Your task to perform on an android device: Turn on the flashlight Image 0: 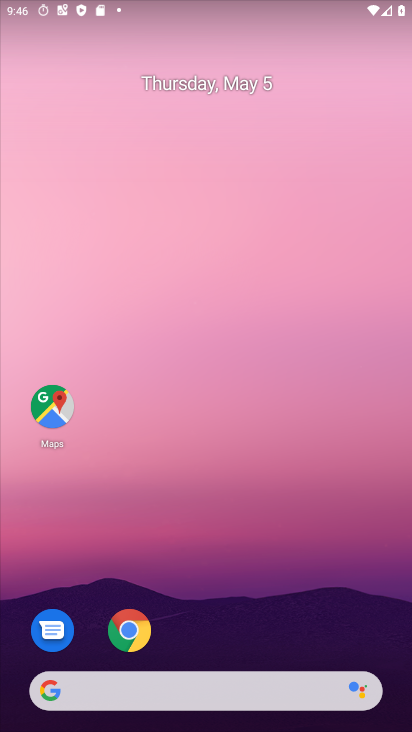
Step 0: drag from (174, 404) to (73, 94)
Your task to perform on an android device: Turn on the flashlight Image 1: 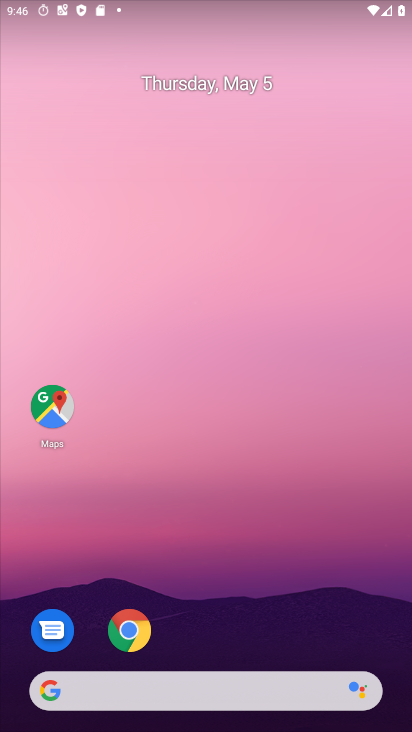
Step 1: drag from (202, 619) to (102, 67)
Your task to perform on an android device: Turn on the flashlight Image 2: 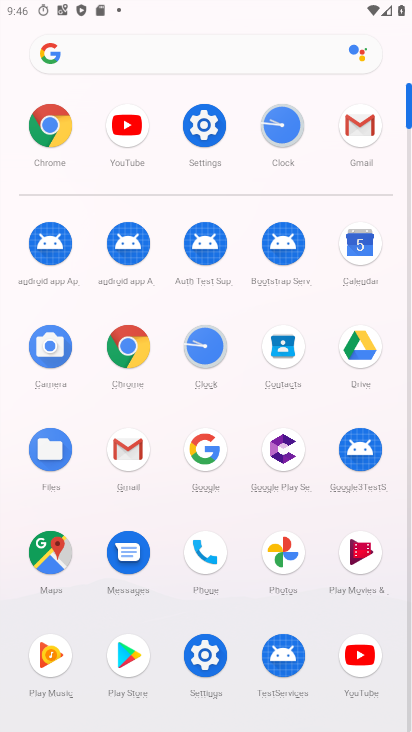
Step 2: click (198, 121)
Your task to perform on an android device: Turn on the flashlight Image 3: 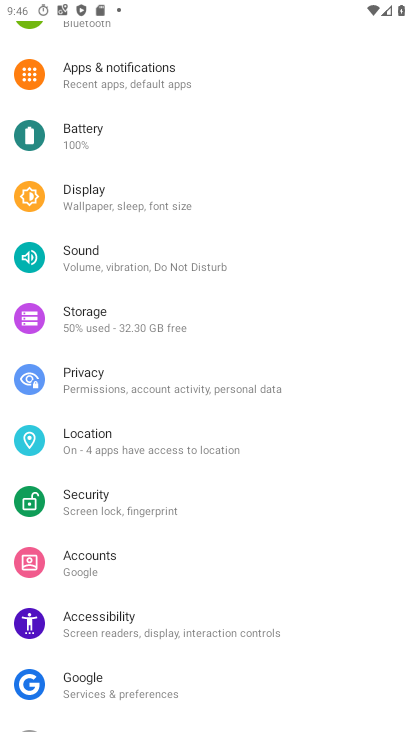
Step 3: drag from (219, 90) to (144, 443)
Your task to perform on an android device: Turn on the flashlight Image 4: 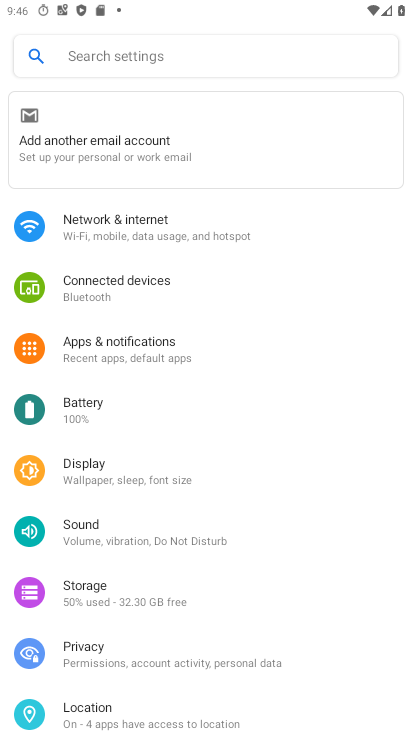
Step 4: click (151, 46)
Your task to perform on an android device: Turn on the flashlight Image 5: 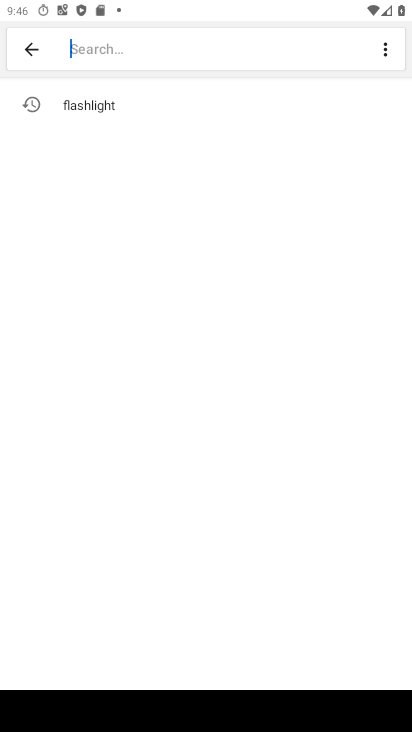
Step 5: click (91, 103)
Your task to perform on an android device: Turn on the flashlight Image 6: 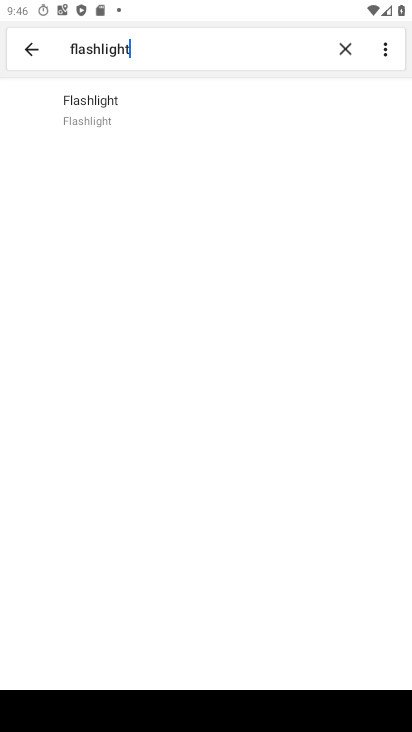
Step 6: click (91, 102)
Your task to perform on an android device: Turn on the flashlight Image 7: 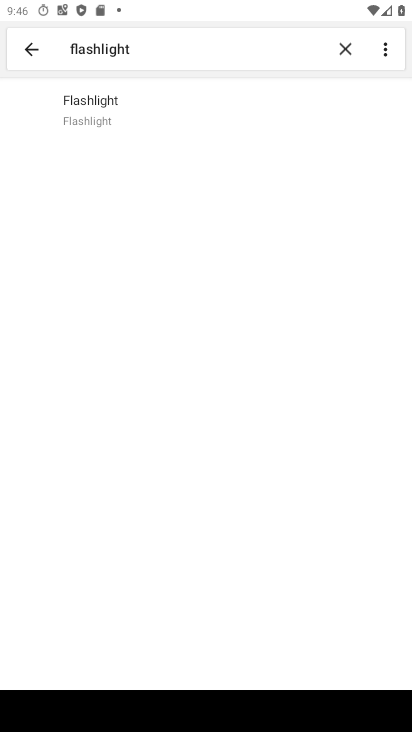
Step 7: click (91, 102)
Your task to perform on an android device: Turn on the flashlight Image 8: 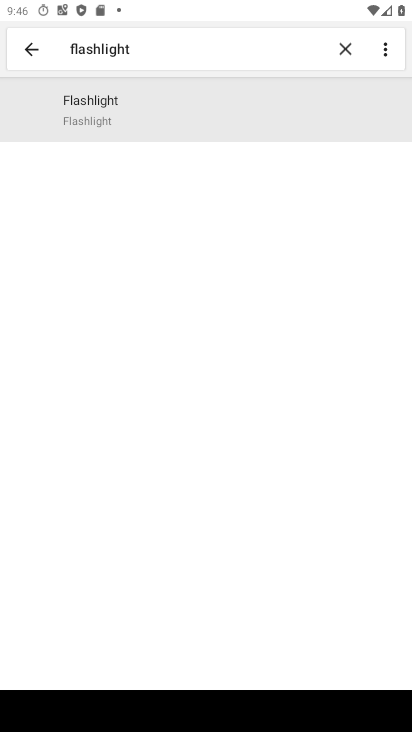
Step 8: click (96, 106)
Your task to perform on an android device: Turn on the flashlight Image 9: 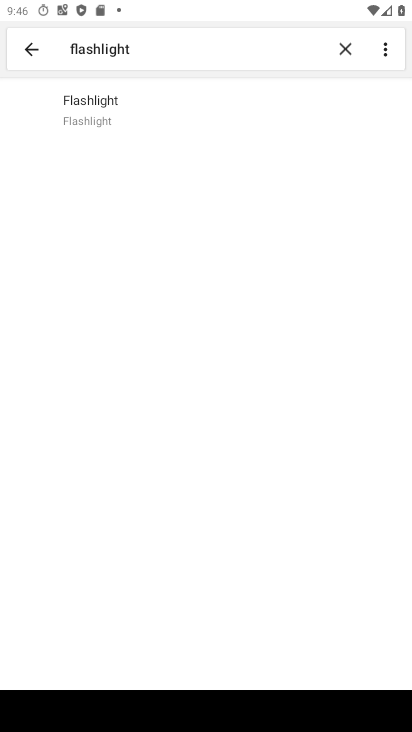
Step 9: click (90, 114)
Your task to perform on an android device: Turn on the flashlight Image 10: 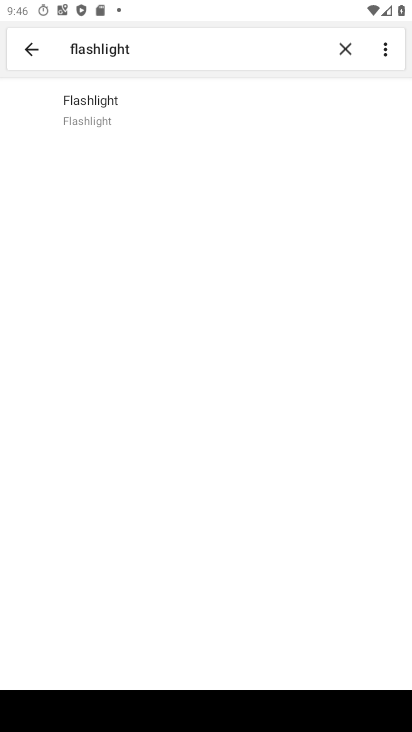
Step 10: task complete